Your task to perform on an android device: open chrome and create a bookmark for the current page Image 0: 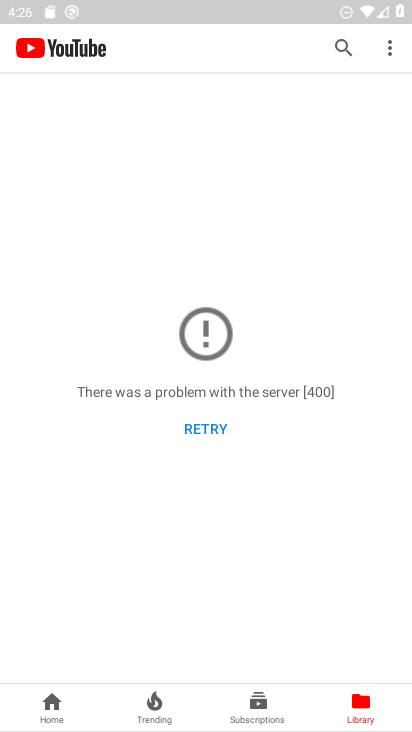
Step 0: press home button
Your task to perform on an android device: open chrome and create a bookmark for the current page Image 1: 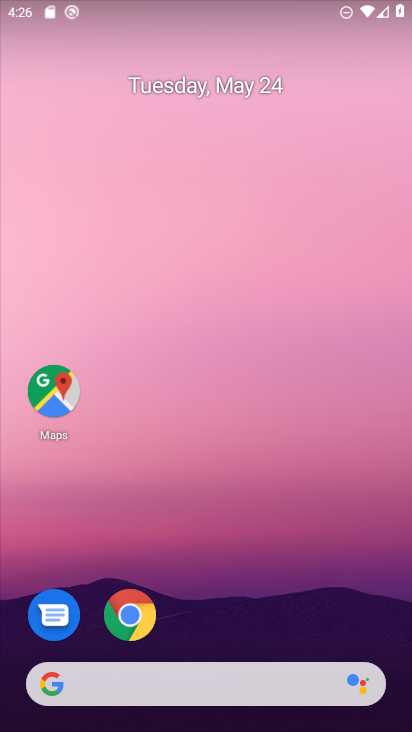
Step 1: click (143, 616)
Your task to perform on an android device: open chrome and create a bookmark for the current page Image 2: 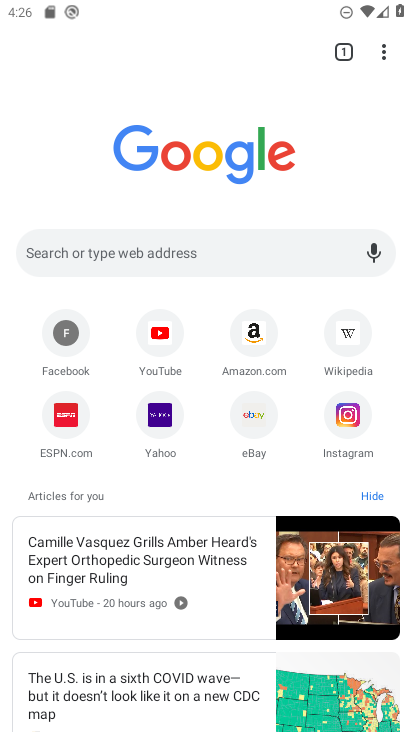
Step 2: click (389, 59)
Your task to perform on an android device: open chrome and create a bookmark for the current page Image 3: 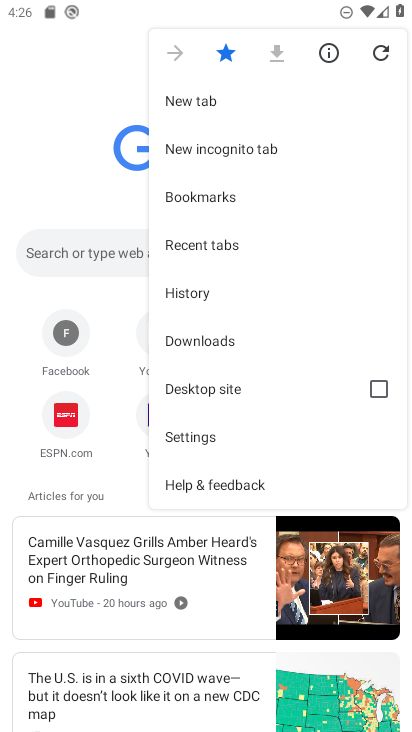
Step 3: task complete